Your task to perform on an android device: Search for pizza restaurants on Maps Image 0: 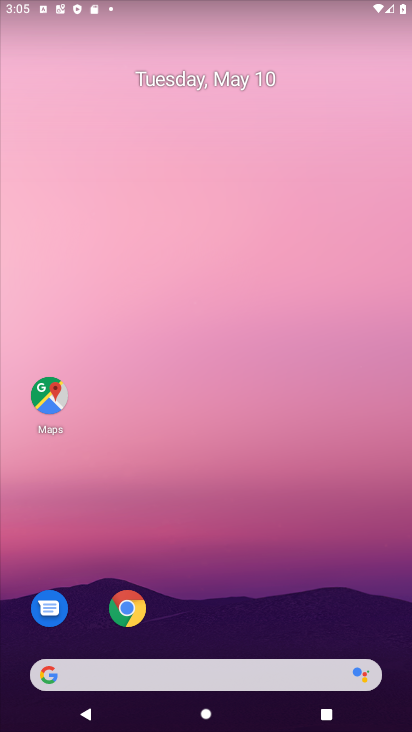
Step 0: click (49, 394)
Your task to perform on an android device: Search for pizza restaurants on Maps Image 1: 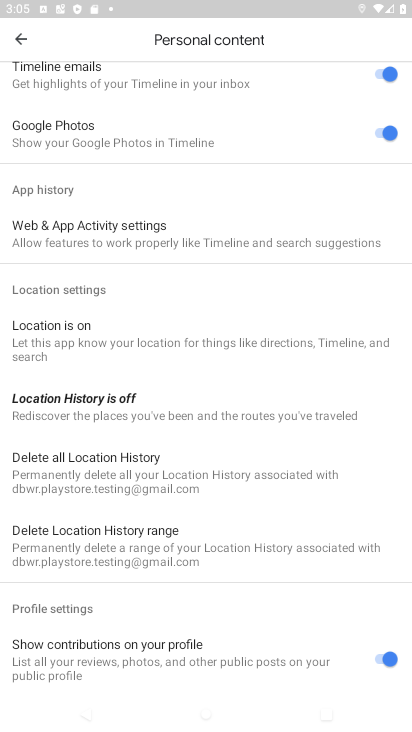
Step 1: press back button
Your task to perform on an android device: Search for pizza restaurants on Maps Image 2: 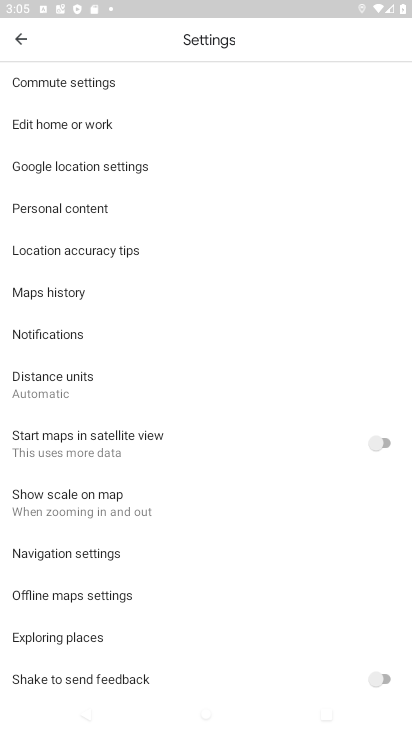
Step 2: press back button
Your task to perform on an android device: Search for pizza restaurants on Maps Image 3: 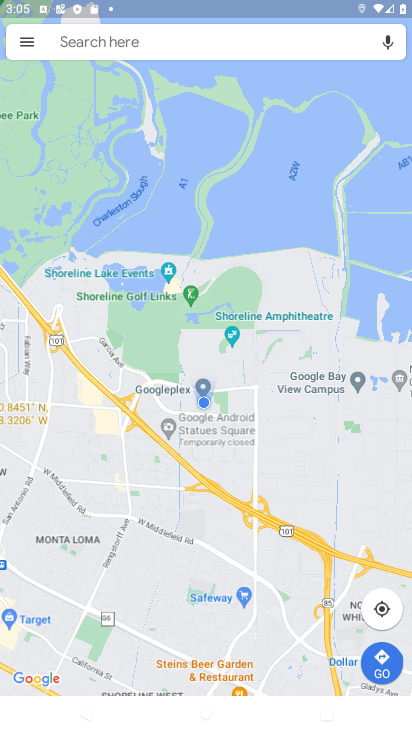
Step 3: click (91, 40)
Your task to perform on an android device: Search for pizza restaurants on Maps Image 4: 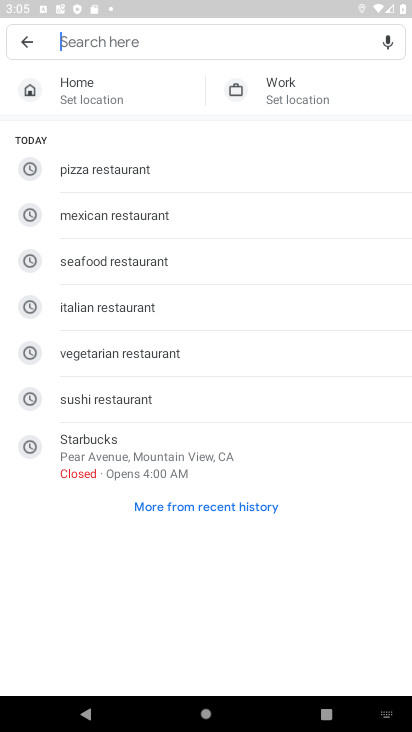
Step 4: type "pizza restaurants"
Your task to perform on an android device: Search for pizza restaurants on Maps Image 5: 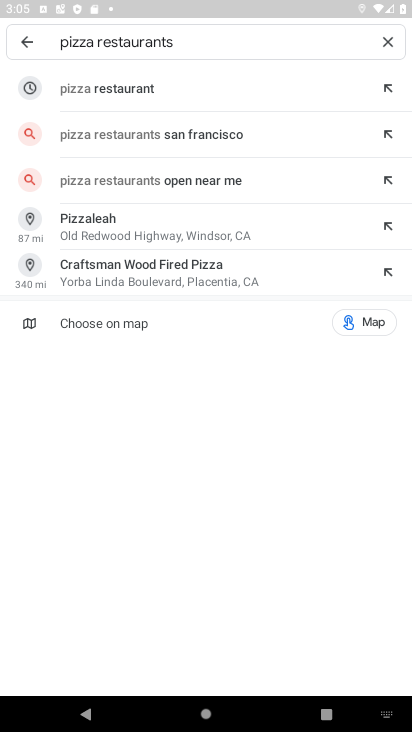
Step 5: click (94, 86)
Your task to perform on an android device: Search for pizza restaurants on Maps Image 6: 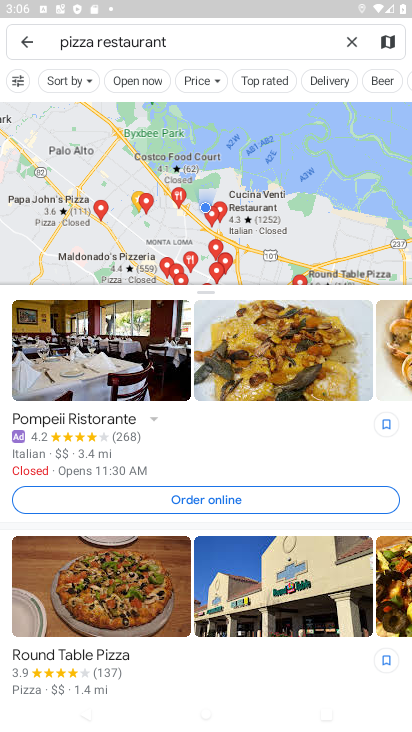
Step 6: task complete